Your task to perform on an android device: Search for asus rog on costco, select the first entry, and add it to the cart. Image 0: 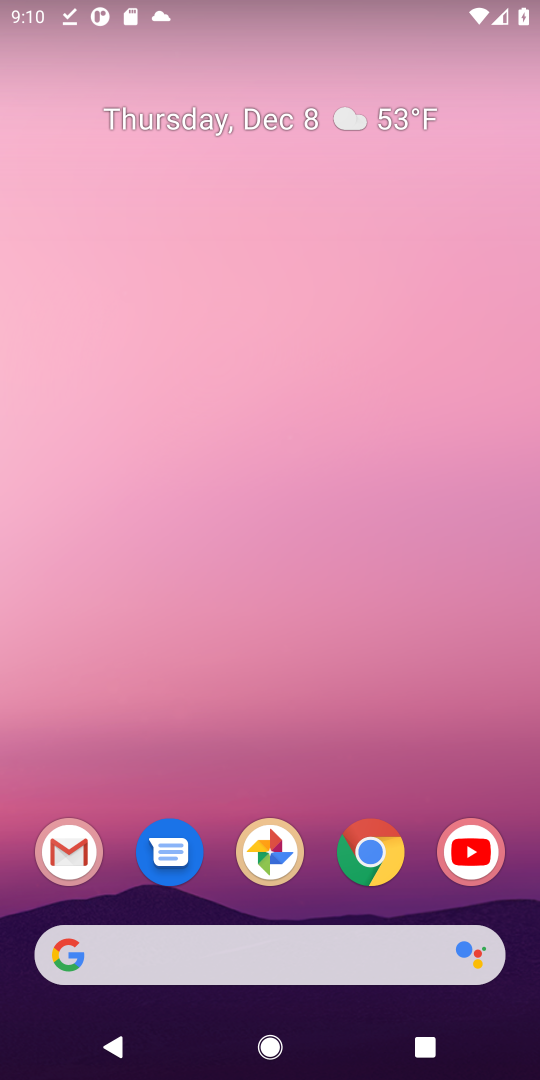
Step 0: click (227, 956)
Your task to perform on an android device: Search for asus rog on costco, select the first entry, and add it to the cart. Image 1: 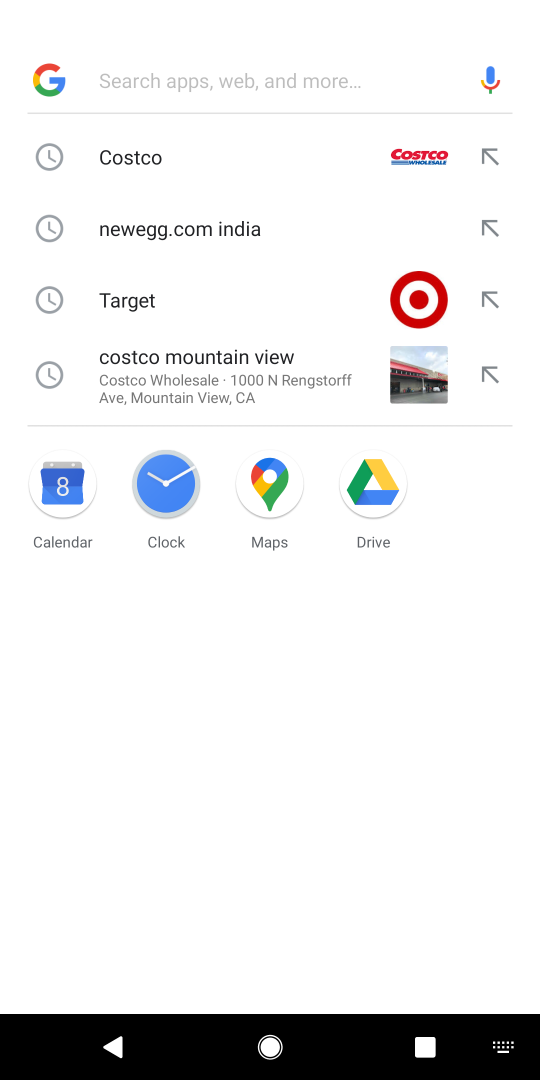
Step 1: type "costco"
Your task to perform on an android device: Search for asus rog on costco, select the first entry, and add it to the cart. Image 2: 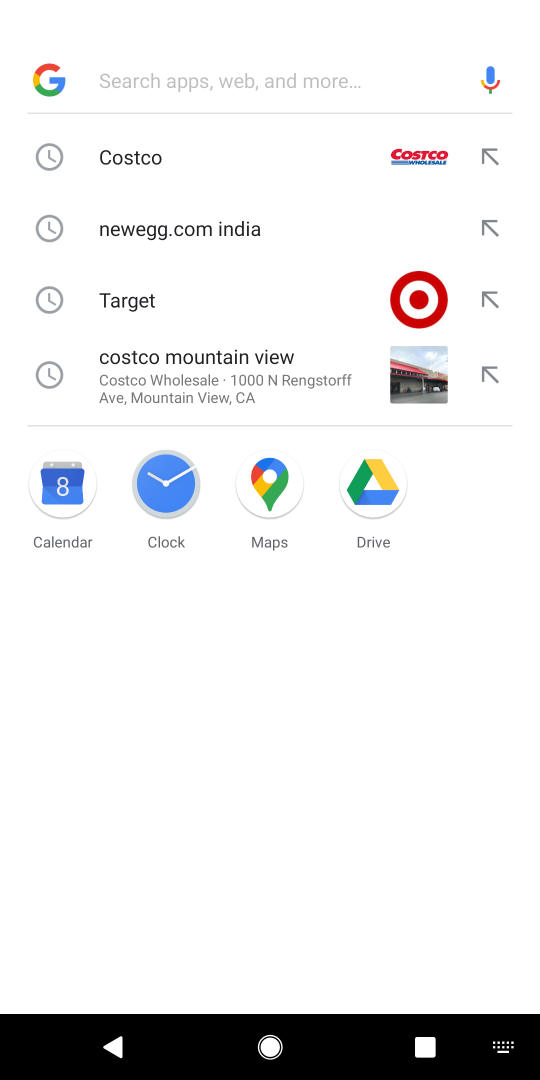
Step 2: click (181, 138)
Your task to perform on an android device: Search for asus rog on costco, select the first entry, and add it to the cart. Image 3: 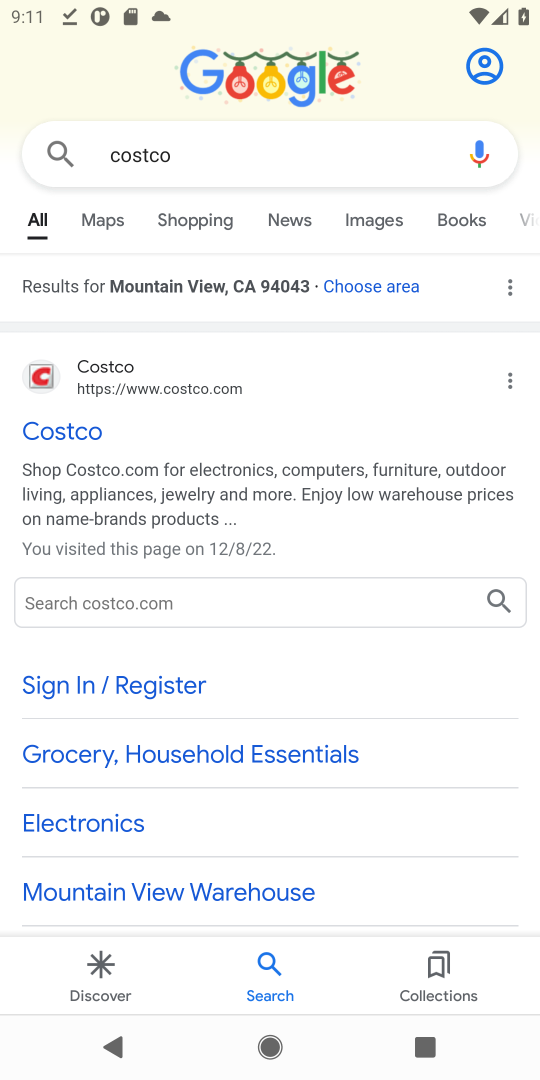
Step 3: click (97, 418)
Your task to perform on an android device: Search for asus rog on costco, select the first entry, and add it to the cart. Image 4: 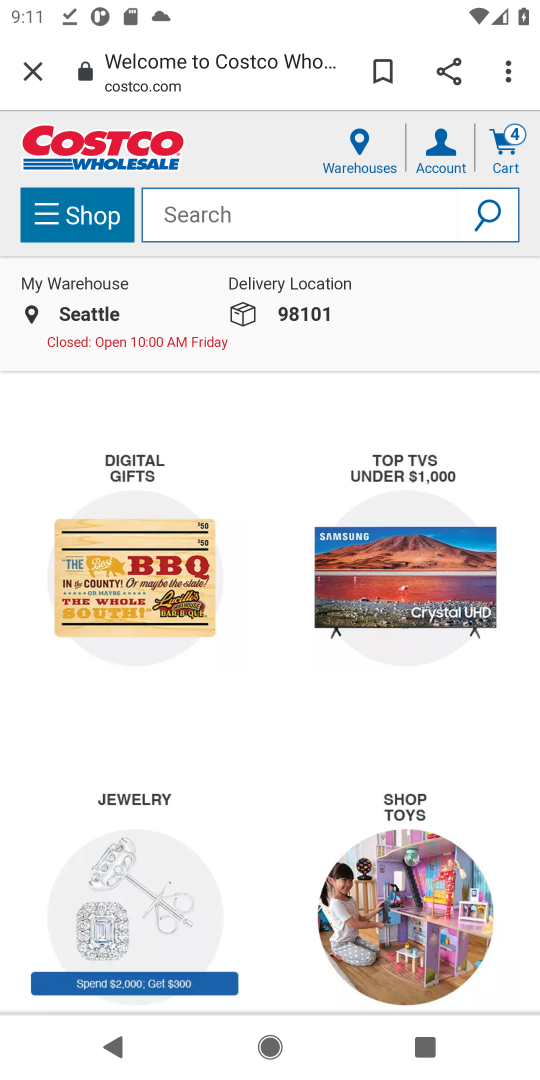
Step 4: click (351, 219)
Your task to perform on an android device: Search for asus rog on costco, select the first entry, and add it to the cart. Image 5: 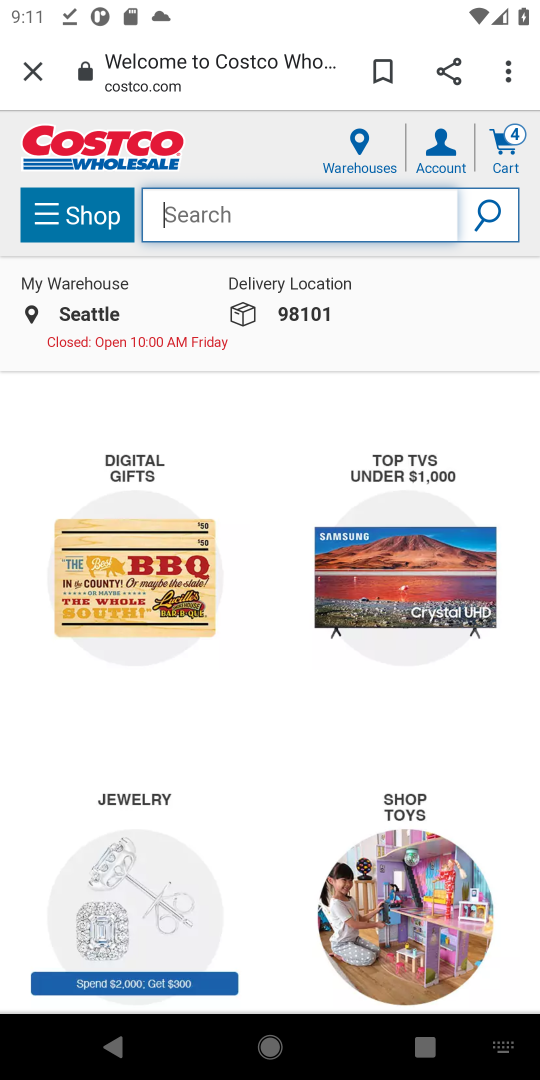
Step 5: type "asus rog"
Your task to perform on an android device: Search for asus rog on costco, select the first entry, and add it to the cart. Image 6: 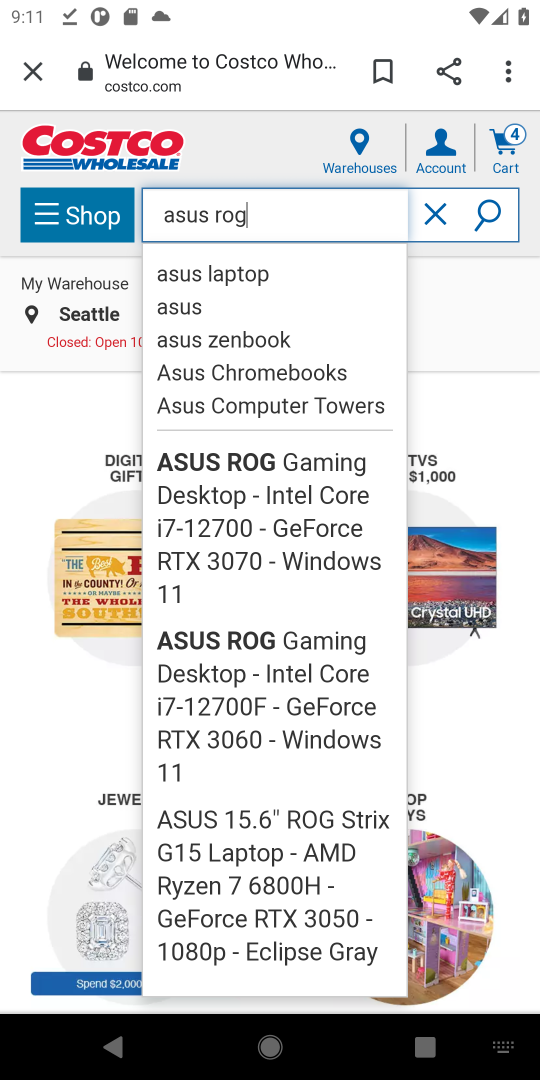
Step 6: click (489, 236)
Your task to perform on an android device: Search for asus rog on costco, select the first entry, and add it to the cart. Image 7: 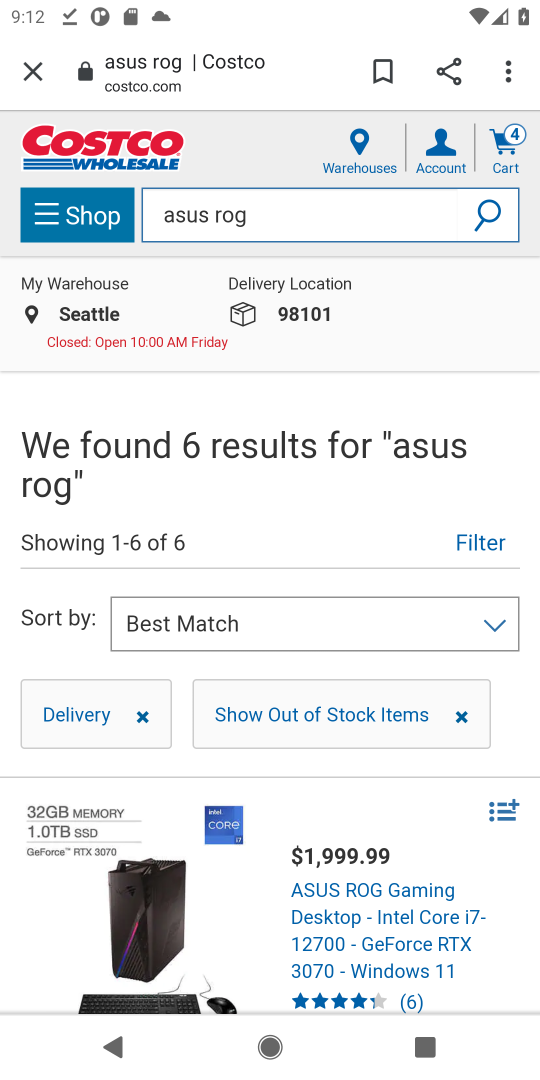
Step 7: click (328, 892)
Your task to perform on an android device: Search for asus rog on costco, select the first entry, and add it to the cart. Image 8: 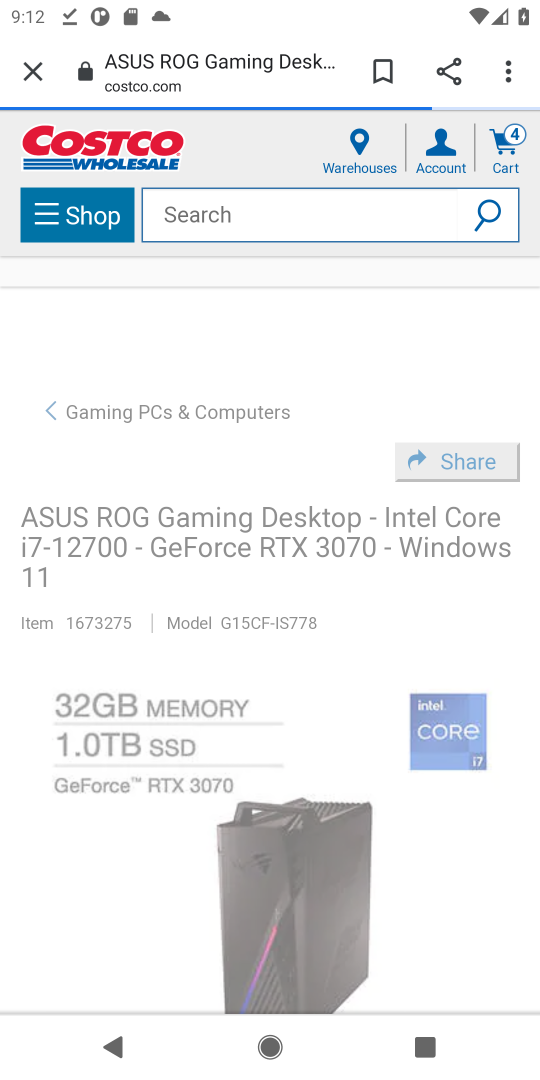
Step 8: drag from (328, 892) to (256, 574)
Your task to perform on an android device: Search for asus rog on costco, select the first entry, and add it to the cart. Image 9: 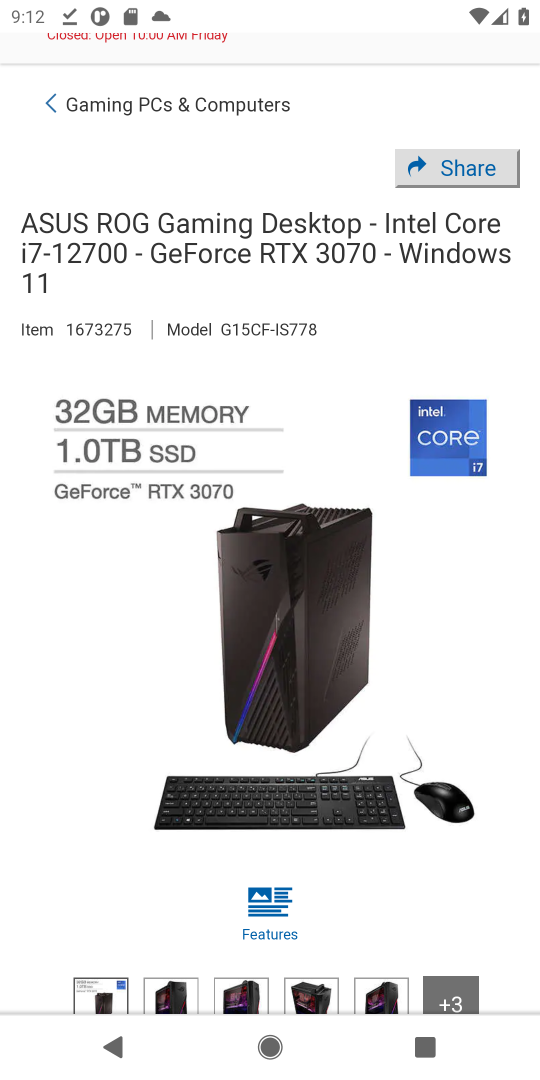
Step 9: drag from (321, 881) to (315, 561)
Your task to perform on an android device: Search for asus rog on costco, select the first entry, and add it to the cart. Image 10: 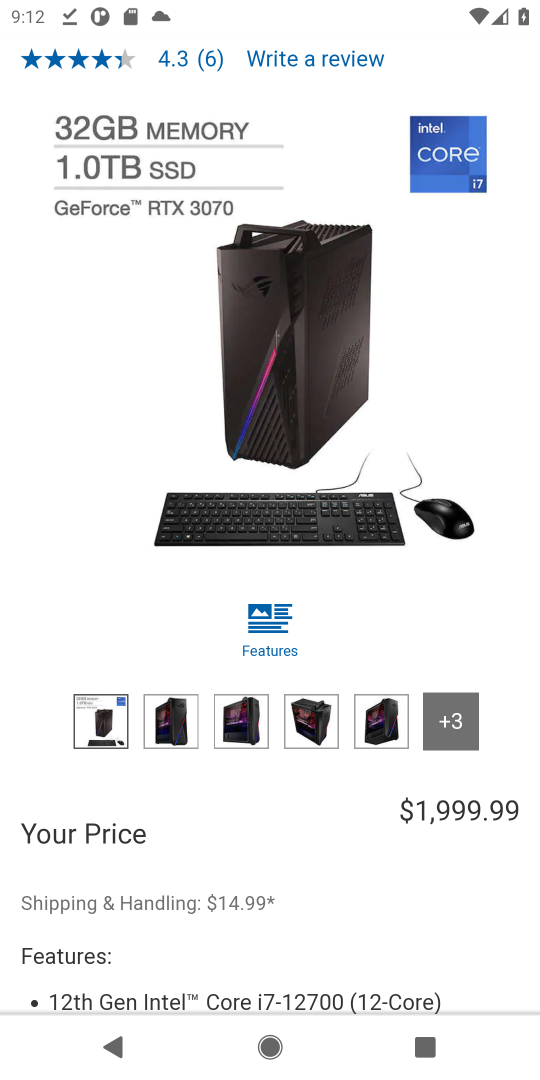
Step 10: drag from (488, 899) to (433, 583)
Your task to perform on an android device: Search for asus rog on costco, select the first entry, and add it to the cart. Image 11: 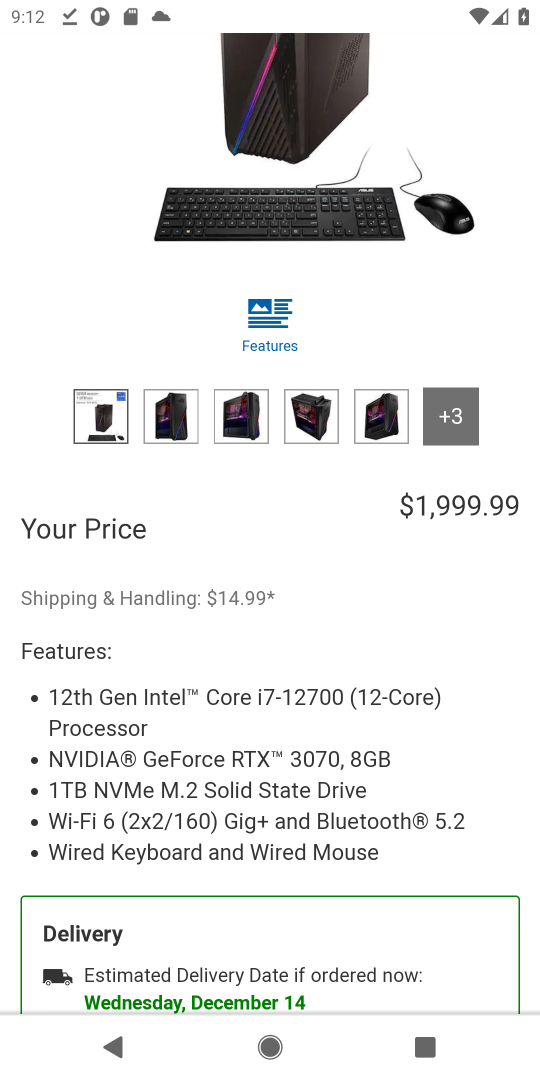
Step 11: drag from (461, 832) to (438, 542)
Your task to perform on an android device: Search for asus rog on costco, select the first entry, and add it to the cart. Image 12: 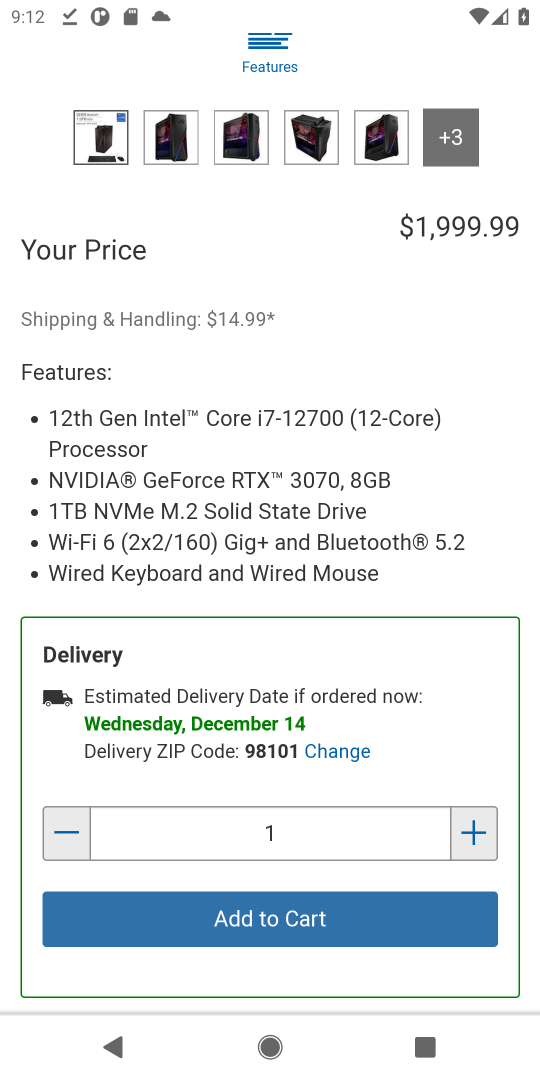
Step 12: click (449, 910)
Your task to perform on an android device: Search for asus rog on costco, select the first entry, and add it to the cart. Image 13: 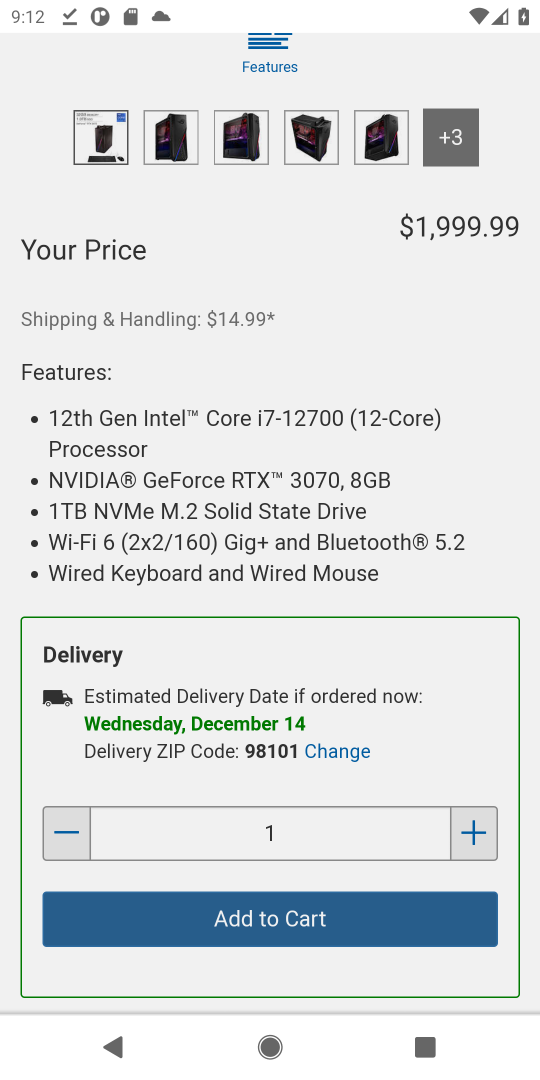
Step 13: task complete